Your task to perform on an android device: add a contact in the contacts app Image 0: 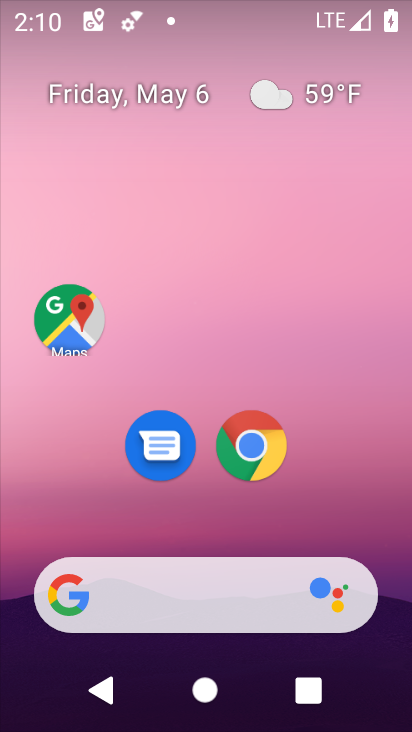
Step 0: drag from (308, 512) to (377, 2)
Your task to perform on an android device: add a contact in the contacts app Image 1: 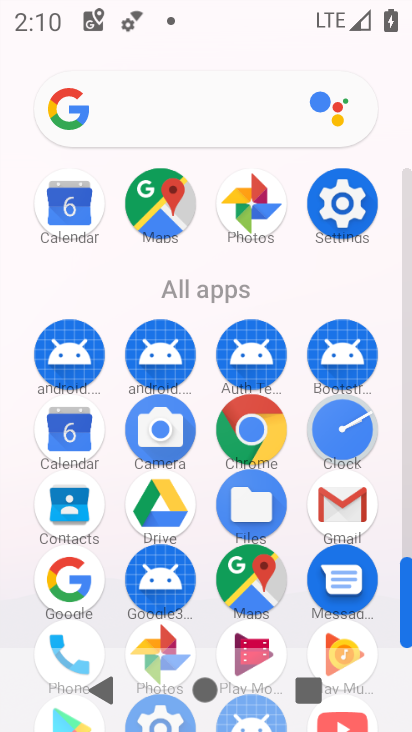
Step 1: click (66, 514)
Your task to perform on an android device: add a contact in the contacts app Image 2: 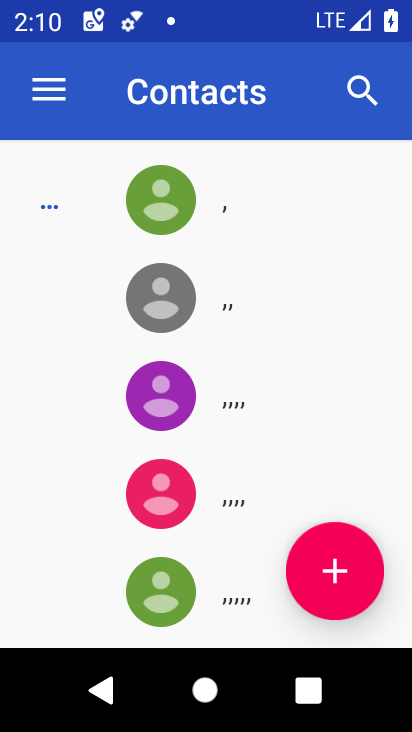
Step 2: click (348, 550)
Your task to perform on an android device: add a contact in the contacts app Image 3: 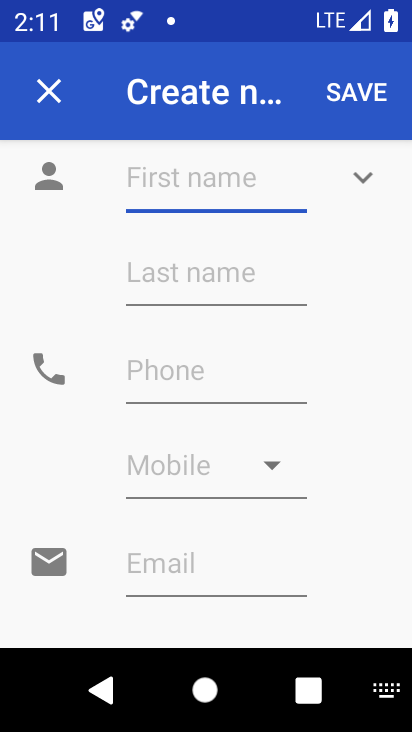
Step 3: type "suhujnbhjkjhu"
Your task to perform on an android device: add a contact in the contacts app Image 4: 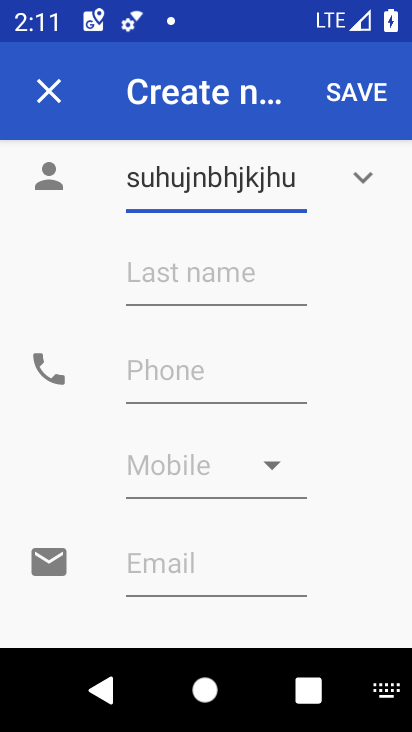
Step 4: click (211, 375)
Your task to perform on an android device: add a contact in the contacts app Image 5: 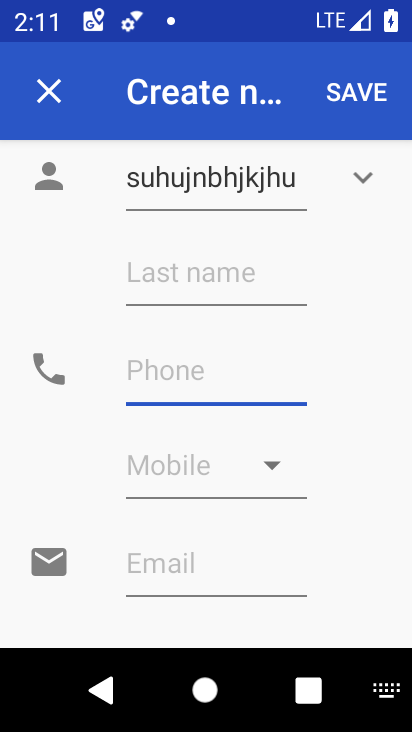
Step 5: type "6768909090"
Your task to perform on an android device: add a contact in the contacts app Image 6: 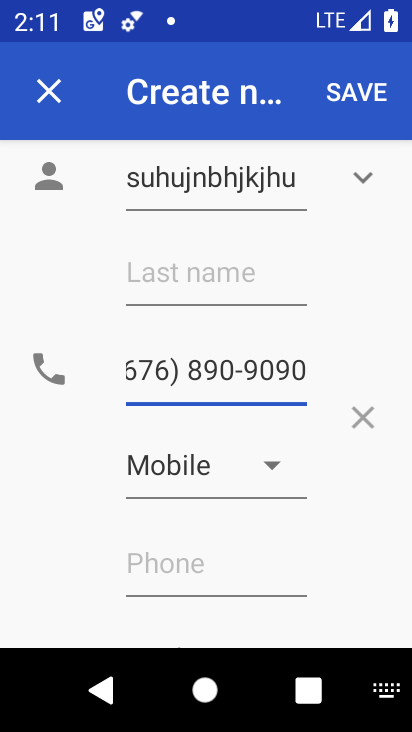
Step 6: click (378, 90)
Your task to perform on an android device: add a contact in the contacts app Image 7: 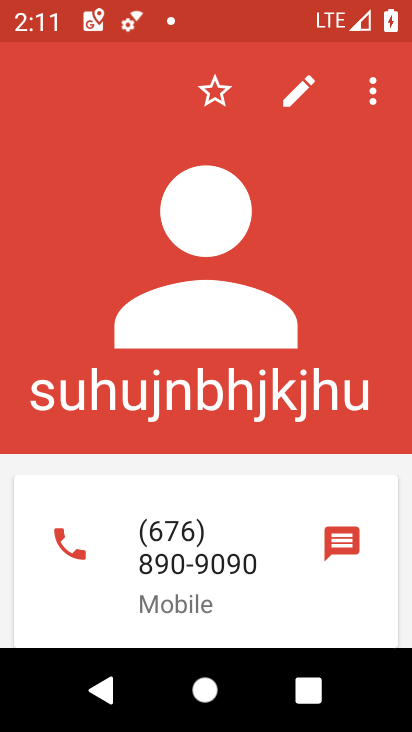
Step 7: task complete